Your task to perform on an android device: Go to battery settings Image 0: 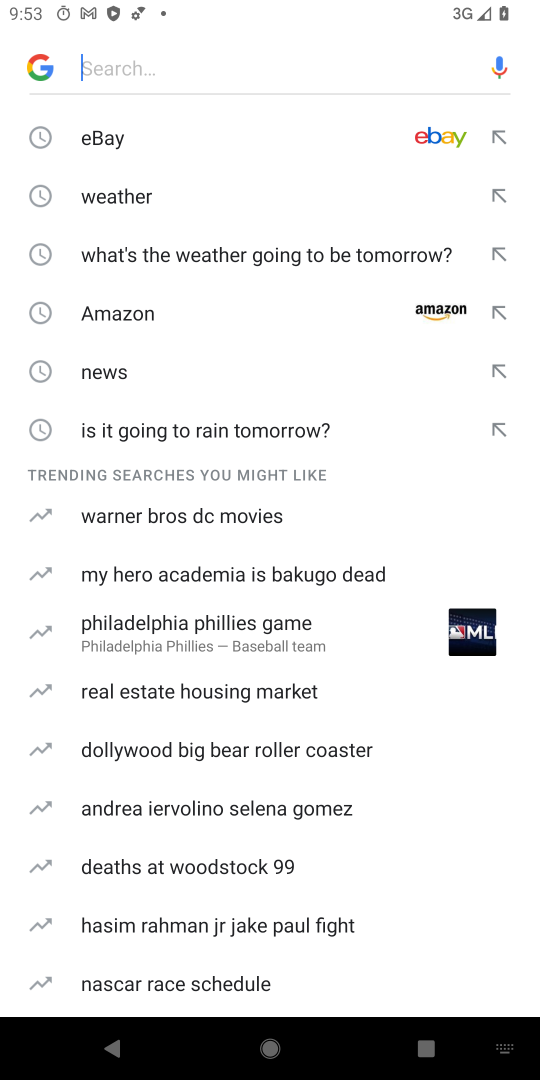
Step 0: press home button
Your task to perform on an android device: Go to battery settings Image 1: 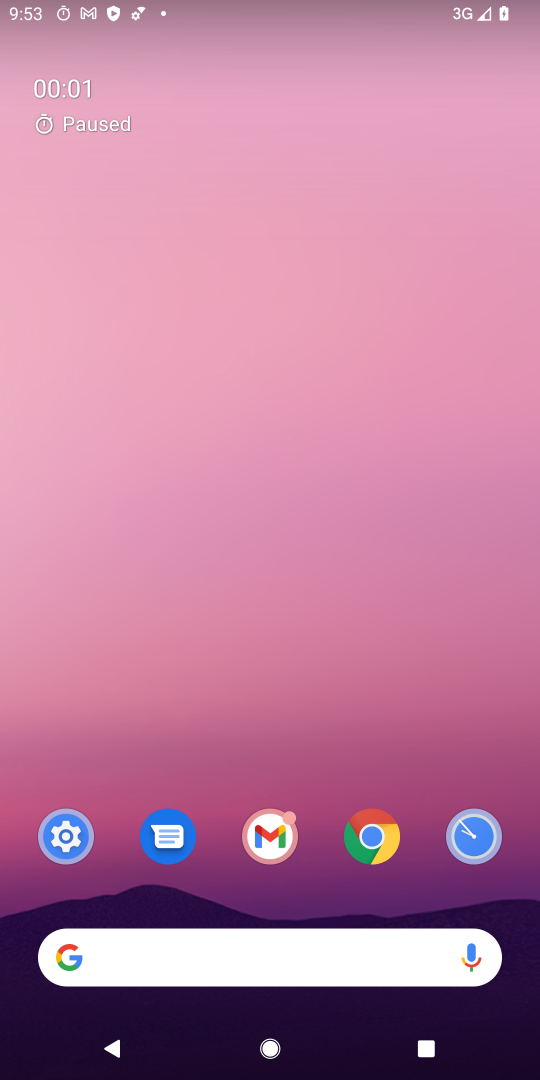
Step 1: drag from (532, 887) to (338, 56)
Your task to perform on an android device: Go to battery settings Image 2: 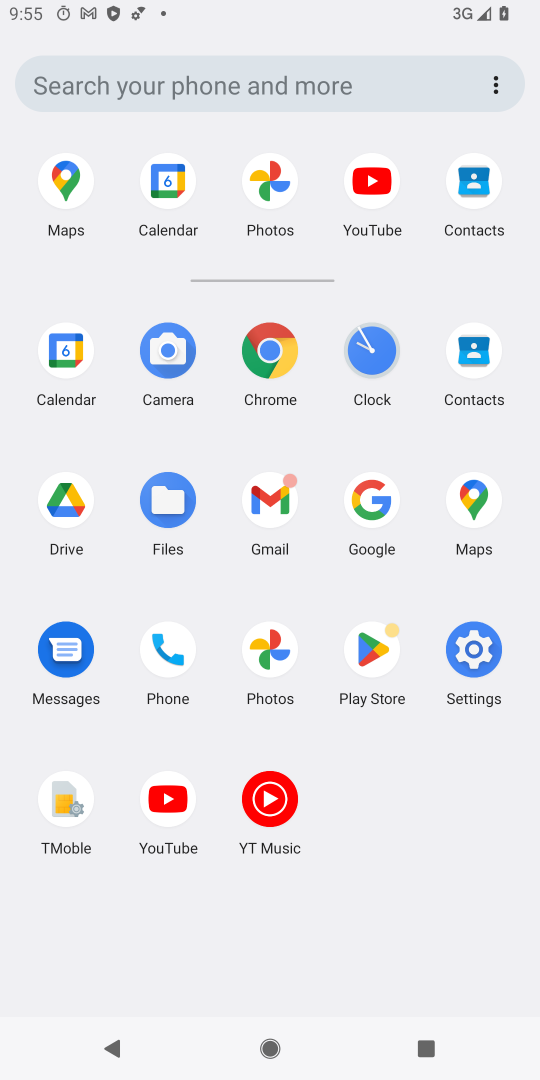
Step 2: click (462, 671)
Your task to perform on an android device: Go to battery settings Image 3: 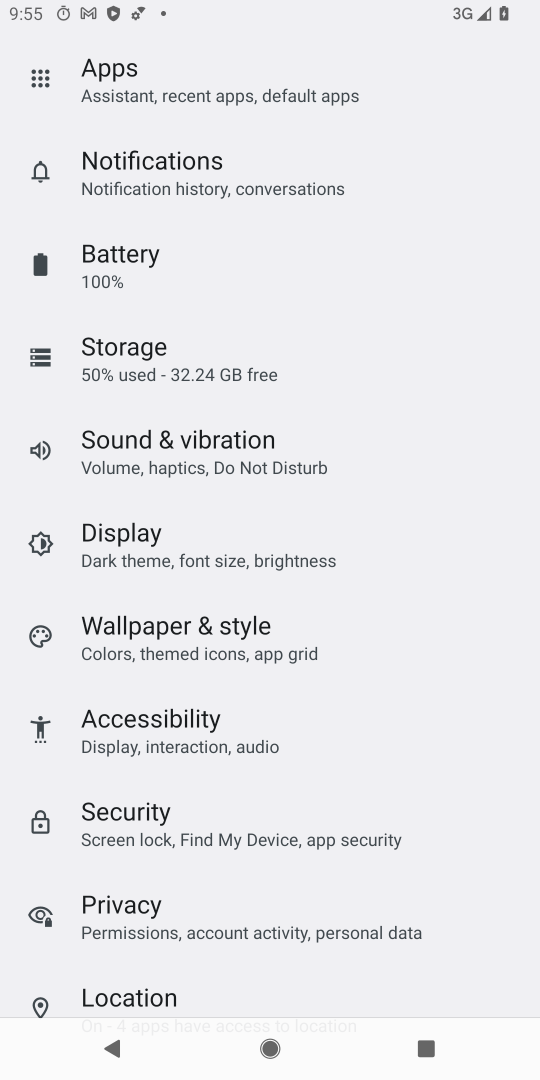
Step 3: click (125, 259)
Your task to perform on an android device: Go to battery settings Image 4: 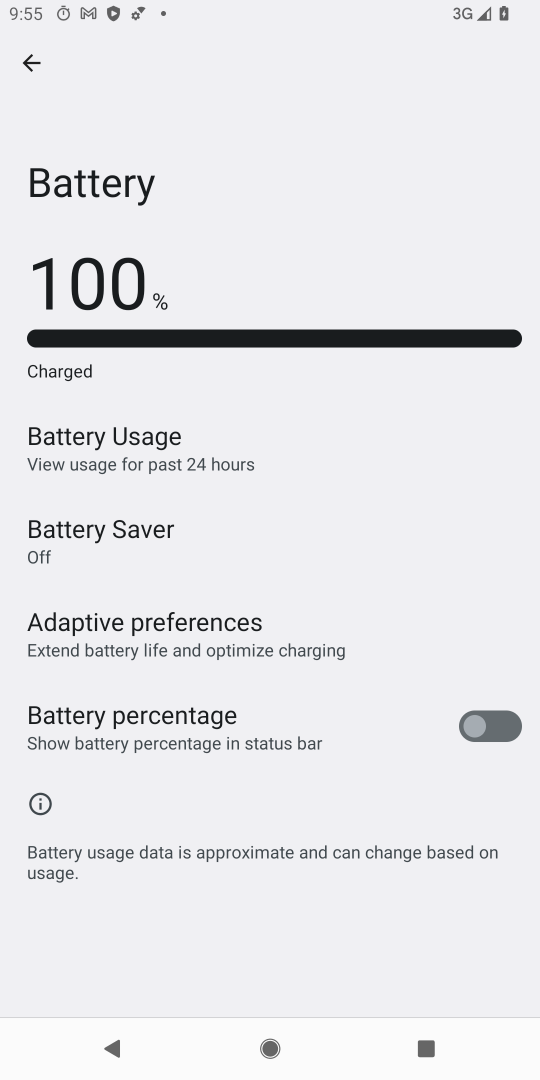
Step 4: task complete